Your task to perform on an android device: Open Google Maps and go to "Timeline" Image 0: 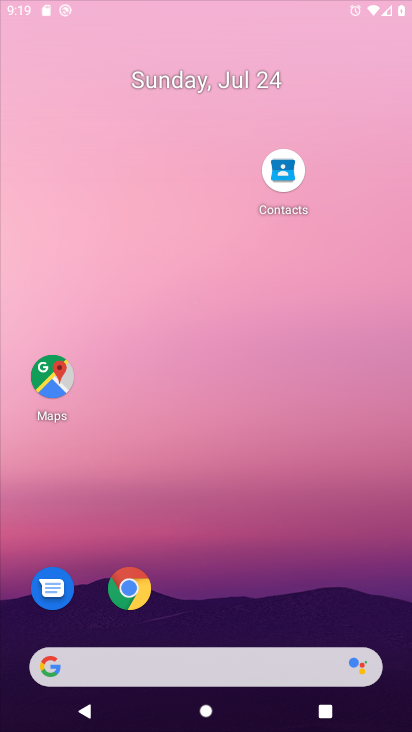
Step 0: press home button
Your task to perform on an android device: Open Google Maps and go to "Timeline" Image 1: 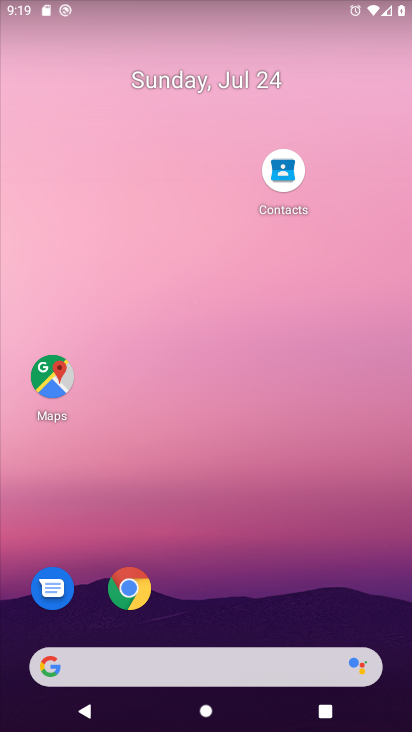
Step 1: drag from (206, 637) to (235, 12)
Your task to perform on an android device: Open Google Maps and go to "Timeline" Image 2: 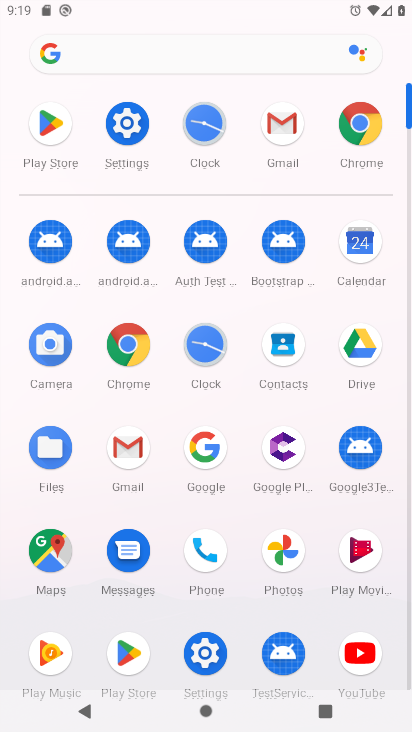
Step 2: click (49, 545)
Your task to perform on an android device: Open Google Maps and go to "Timeline" Image 3: 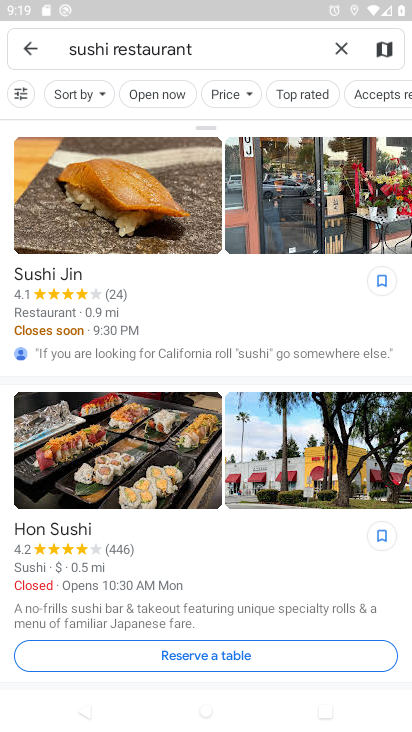
Step 3: click (30, 43)
Your task to perform on an android device: Open Google Maps and go to "Timeline" Image 4: 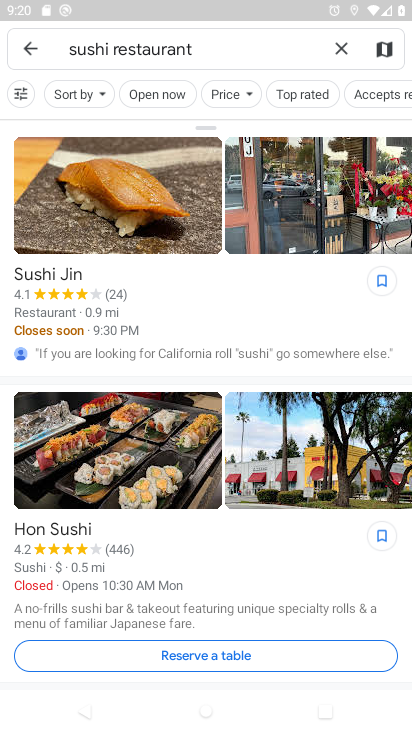
Step 4: click (36, 49)
Your task to perform on an android device: Open Google Maps and go to "Timeline" Image 5: 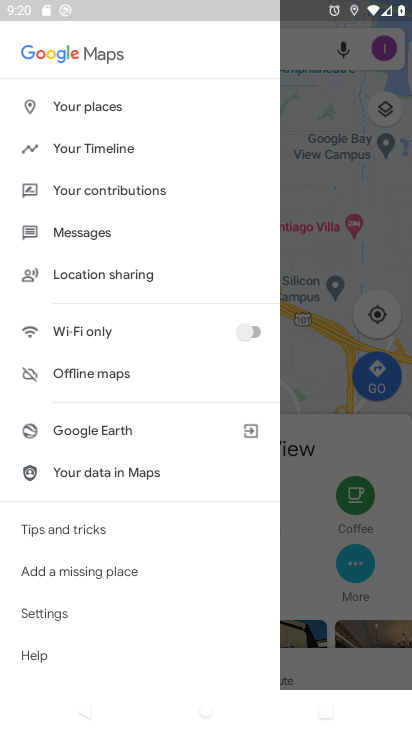
Step 5: click (103, 146)
Your task to perform on an android device: Open Google Maps and go to "Timeline" Image 6: 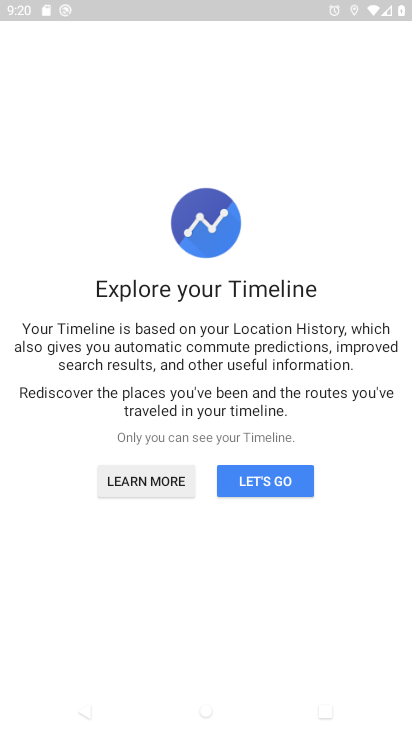
Step 6: click (258, 483)
Your task to perform on an android device: Open Google Maps and go to "Timeline" Image 7: 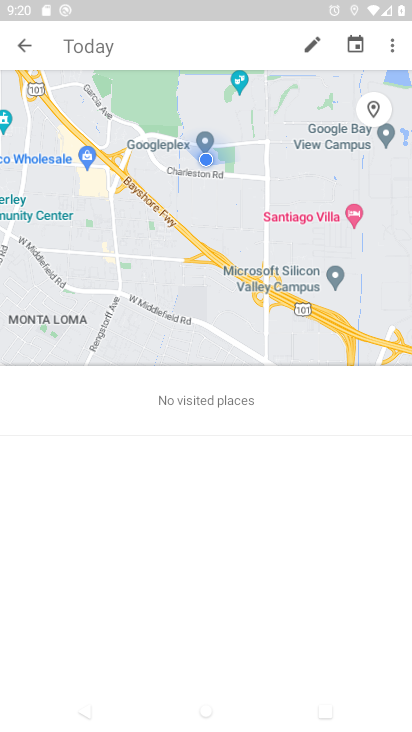
Step 7: task complete